Your task to perform on an android device: Play the last video I watched on Youtube Image 0: 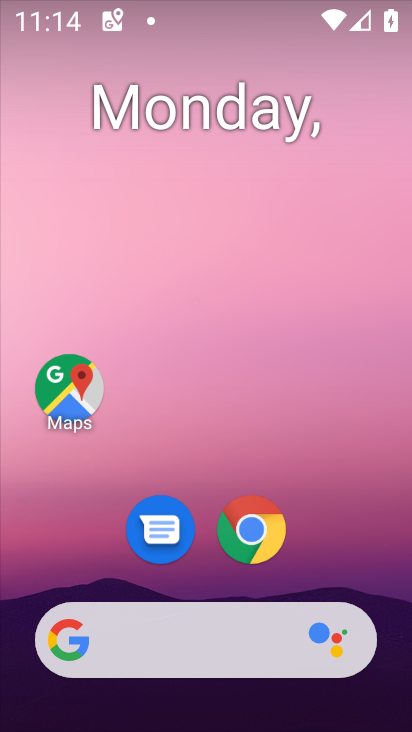
Step 0: press home button
Your task to perform on an android device: Play the last video I watched on Youtube Image 1: 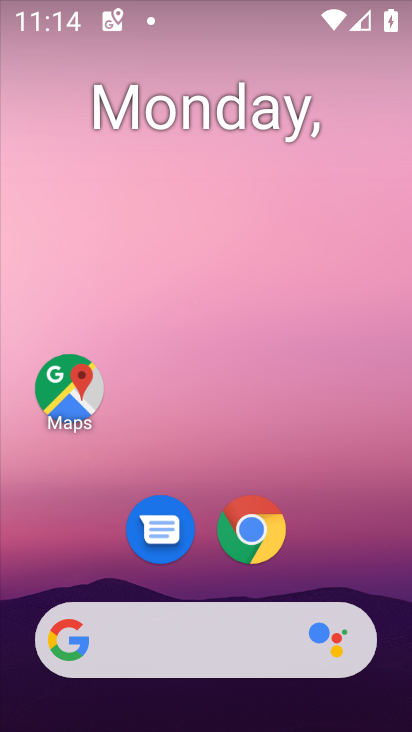
Step 1: drag from (229, 670) to (274, 217)
Your task to perform on an android device: Play the last video I watched on Youtube Image 2: 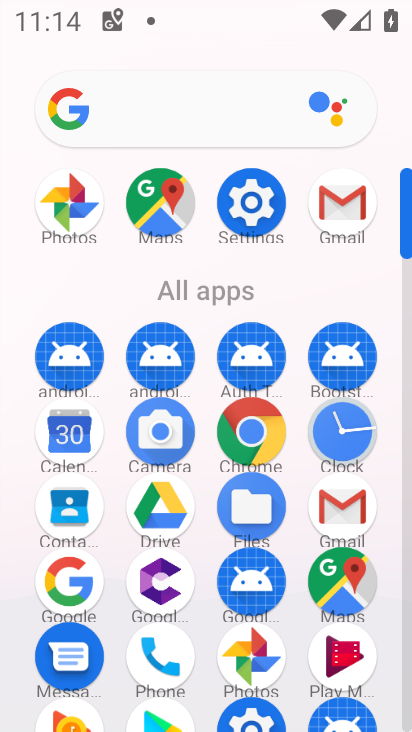
Step 2: drag from (197, 615) to (183, 384)
Your task to perform on an android device: Play the last video I watched on Youtube Image 3: 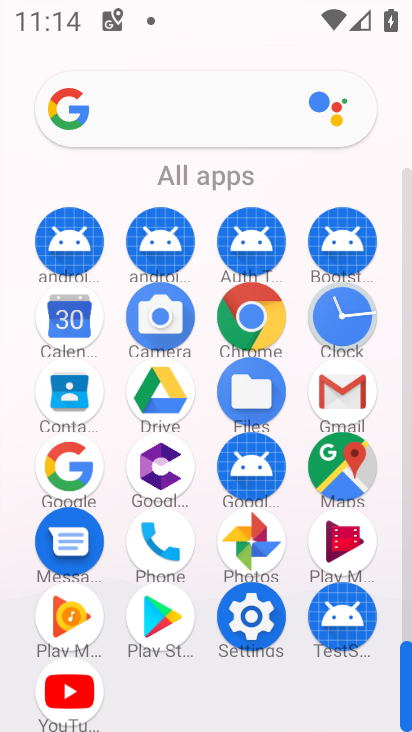
Step 3: click (77, 676)
Your task to perform on an android device: Play the last video I watched on Youtube Image 4: 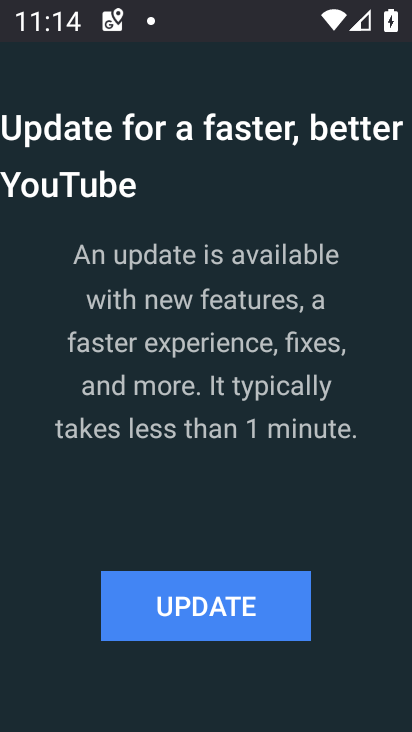
Step 4: click (179, 626)
Your task to perform on an android device: Play the last video I watched on Youtube Image 5: 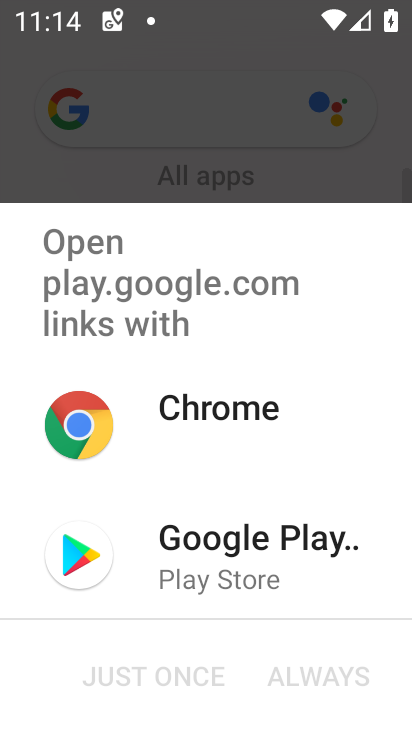
Step 5: click (218, 549)
Your task to perform on an android device: Play the last video I watched on Youtube Image 6: 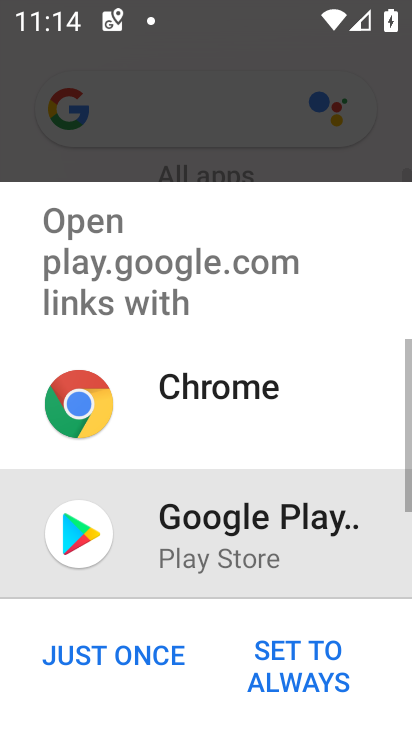
Step 6: click (146, 649)
Your task to perform on an android device: Play the last video I watched on Youtube Image 7: 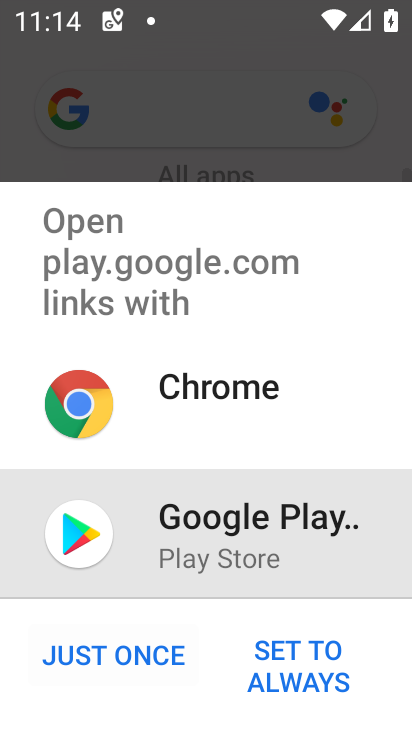
Step 7: click (146, 649)
Your task to perform on an android device: Play the last video I watched on Youtube Image 8: 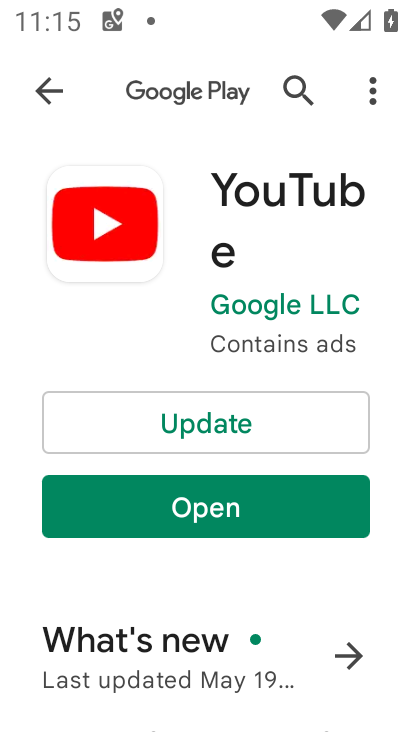
Step 8: click (228, 429)
Your task to perform on an android device: Play the last video I watched on Youtube Image 9: 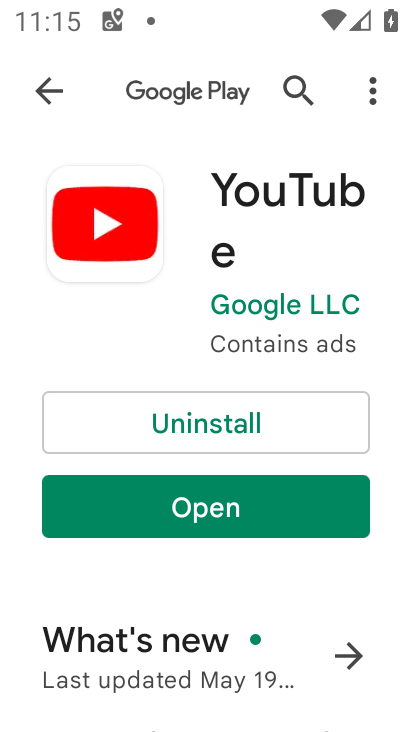
Step 9: click (221, 513)
Your task to perform on an android device: Play the last video I watched on Youtube Image 10: 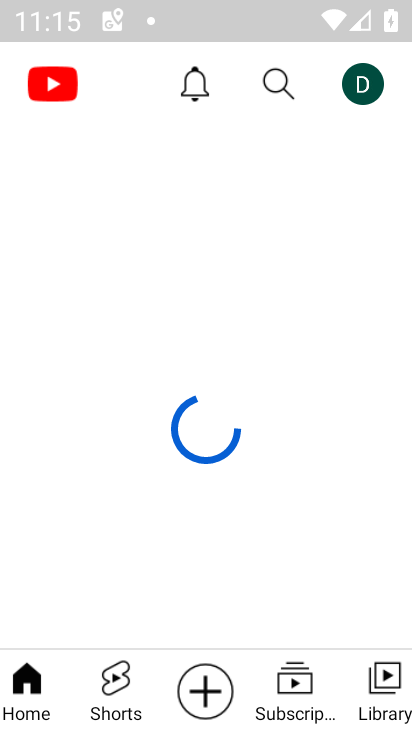
Step 10: click (369, 693)
Your task to perform on an android device: Play the last video I watched on Youtube Image 11: 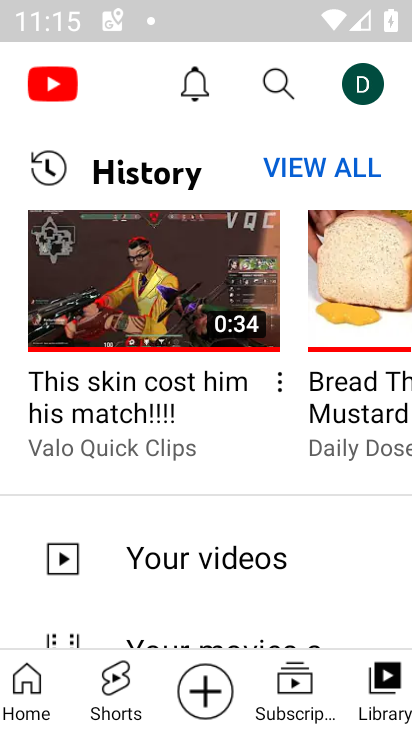
Step 11: click (126, 295)
Your task to perform on an android device: Play the last video I watched on Youtube Image 12: 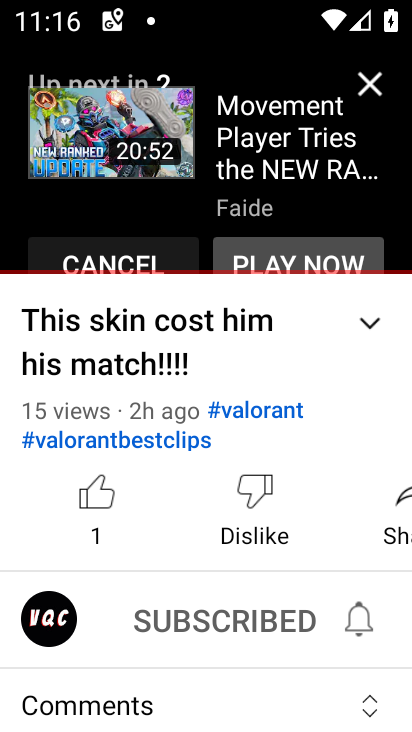
Step 12: click (377, 89)
Your task to perform on an android device: Play the last video I watched on Youtube Image 13: 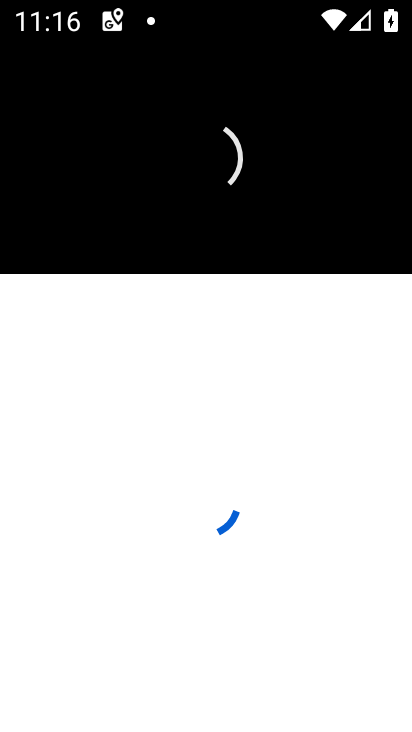
Step 13: task complete